Your task to perform on an android device: delete the emails in spam in the gmail app Image 0: 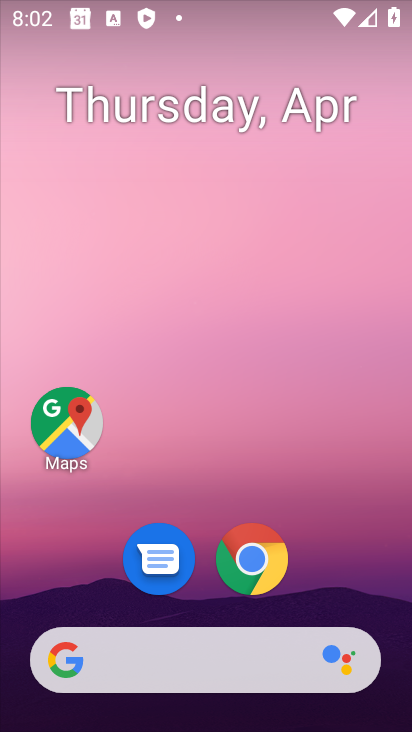
Step 0: drag from (136, 638) to (88, 207)
Your task to perform on an android device: delete the emails in spam in the gmail app Image 1: 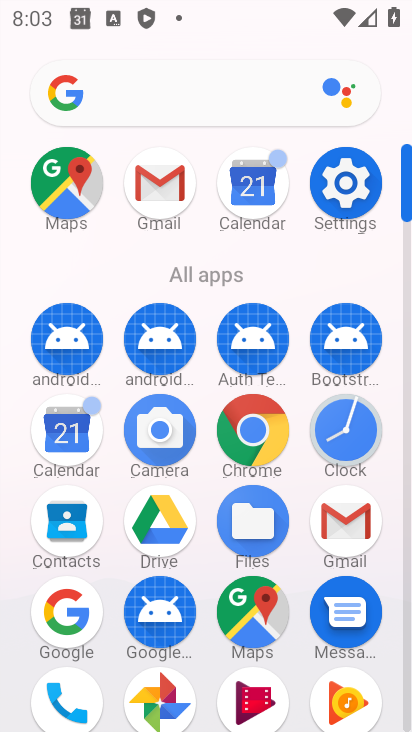
Step 1: click (176, 181)
Your task to perform on an android device: delete the emails in spam in the gmail app Image 2: 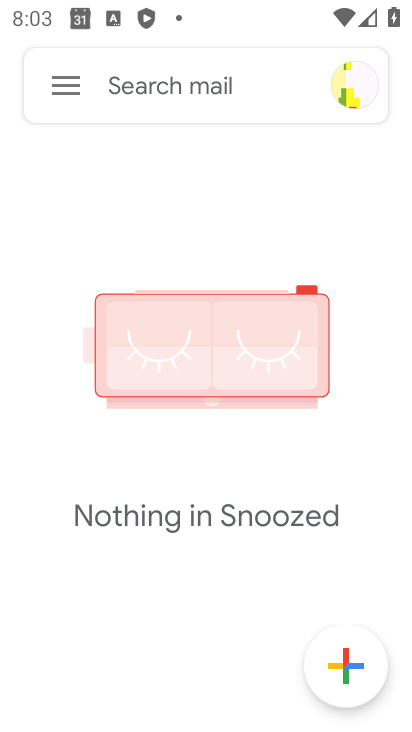
Step 2: click (71, 92)
Your task to perform on an android device: delete the emails in spam in the gmail app Image 3: 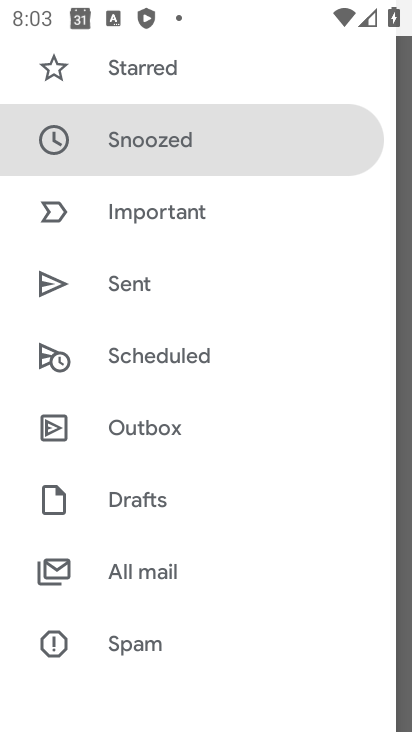
Step 3: click (144, 568)
Your task to perform on an android device: delete the emails in spam in the gmail app Image 4: 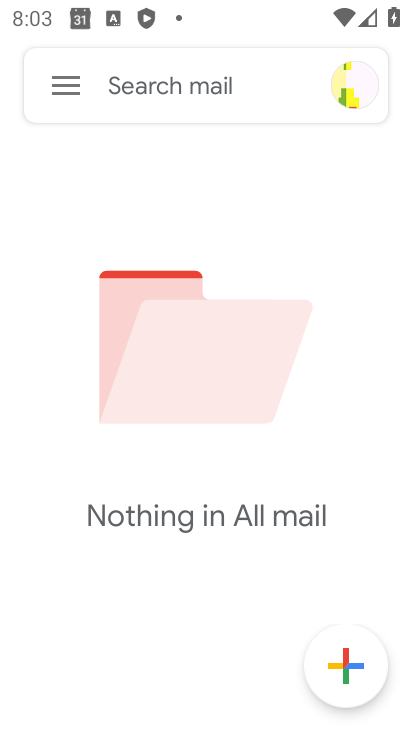
Step 4: click (63, 79)
Your task to perform on an android device: delete the emails in spam in the gmail app Image 5: 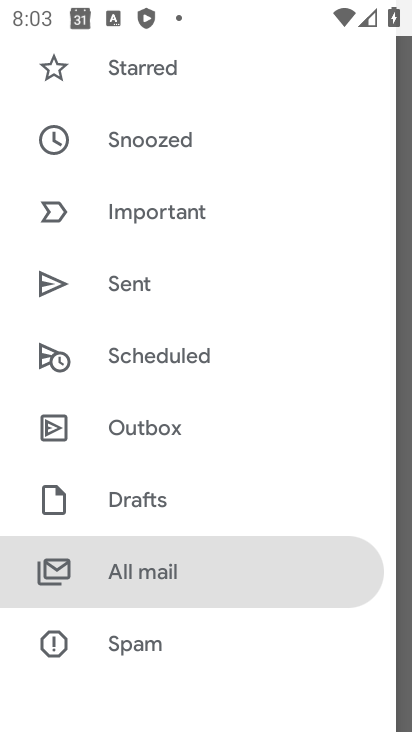
Step 5: click (137, 630)
Your task to perform on an android device: delete the emails in spam in the gmail app Image 6: 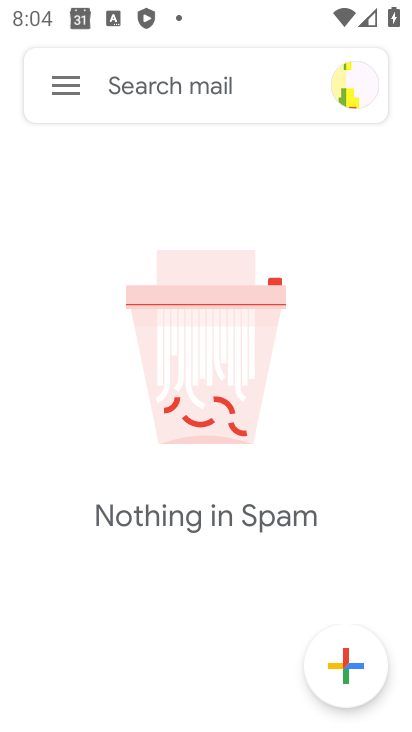
Step 6: task complete